Your task to perform on an android device: find which apps use the phone's location Image 0: 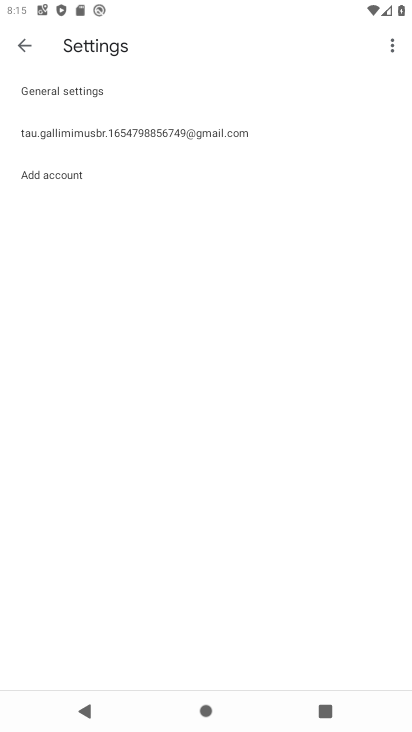
Step 0: press home button
Your task to perform on an android device: find which apps use the phone's location Image 1: 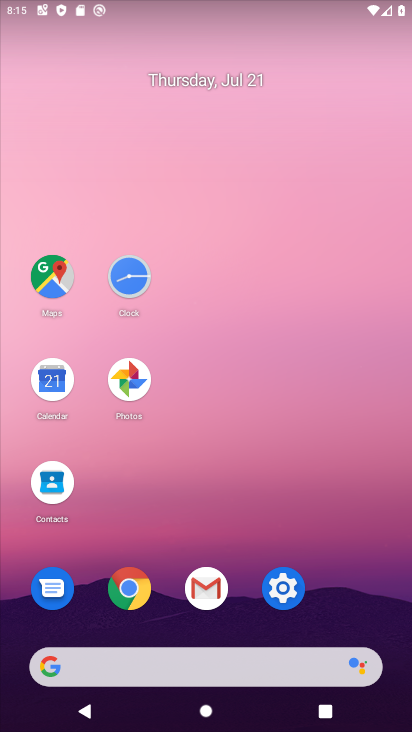
Step 1: click (275, 576)
Your task to perform on an android device: find which apps use the phone's location Image 2: 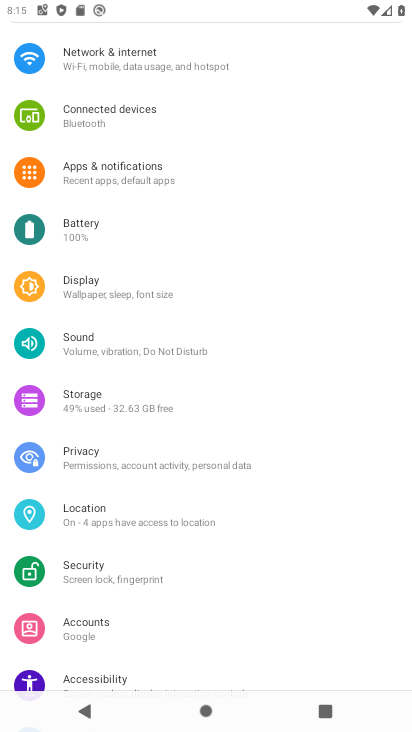
Step 2: click (95, 507)
Your task to perform on an android device: find which apps use the phone's location Image 3: 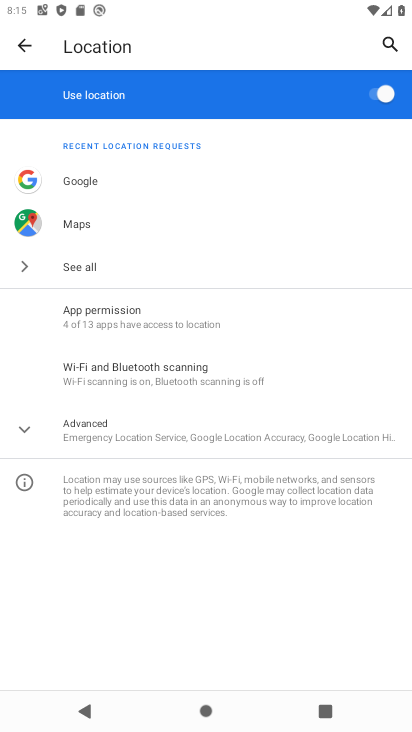
Step 3: click (41, 263)
Your task to perform on an android device: find which apps use the phone's location Image 4: 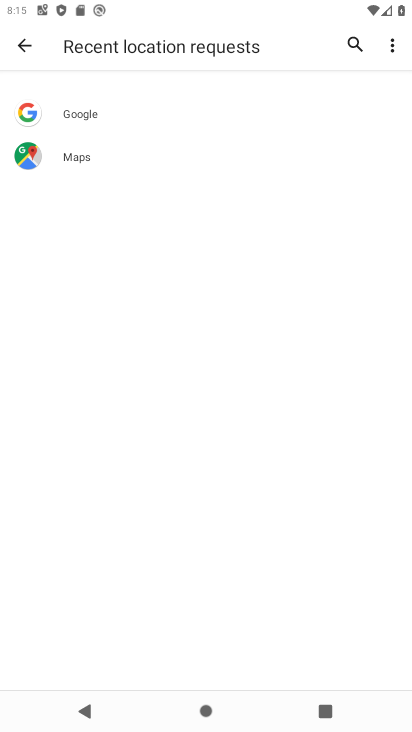
Step 4: task complete